Your task to perform on an android device: turn on location history Image 0: 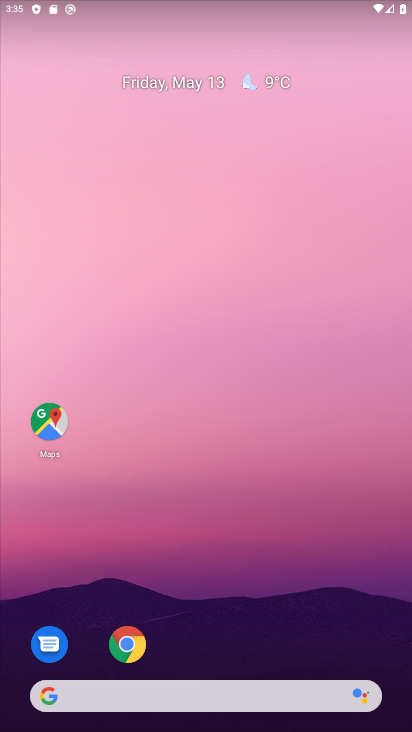
Step 0: drag from (267, 588) to (277, 133)
Your task to perform on an android device: turn on location history Image 1: 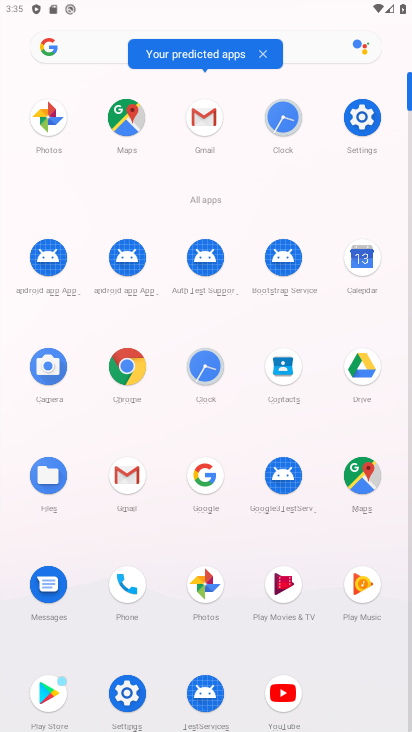
Step 1: click (363, 113)
Your task to perform on an android device: turn on location history Image 2: 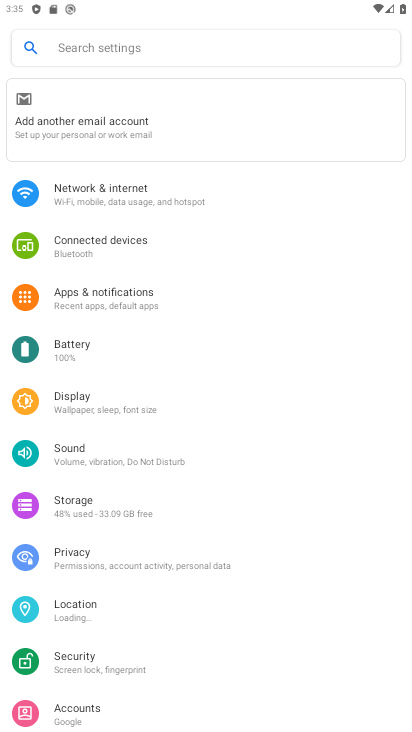
Step 2: click (105, 603)
Your task to perform on an android device: turn on location history Image 3: 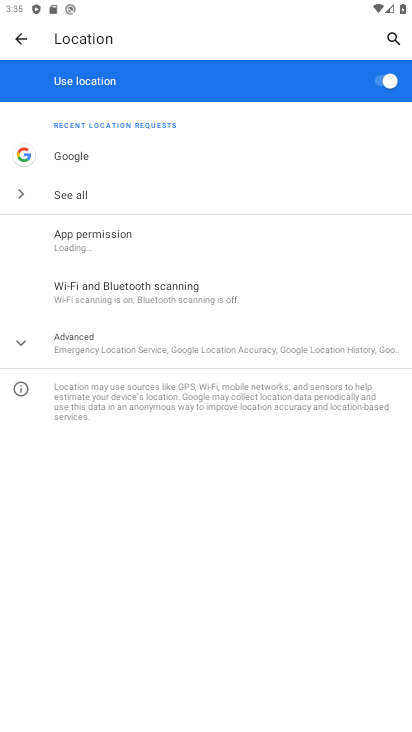
Step 3: click (14, 342)
Your task to perform on an android device: turn on location history Image 4: 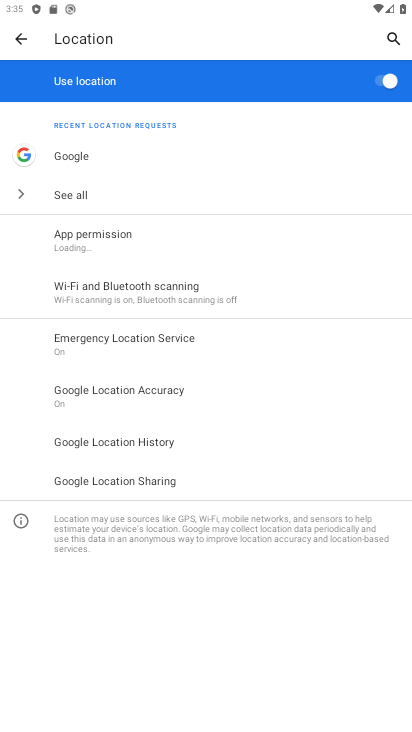
Step 4: click (167, 440)
Your task to perform on an android device: turn on location history Image 5: 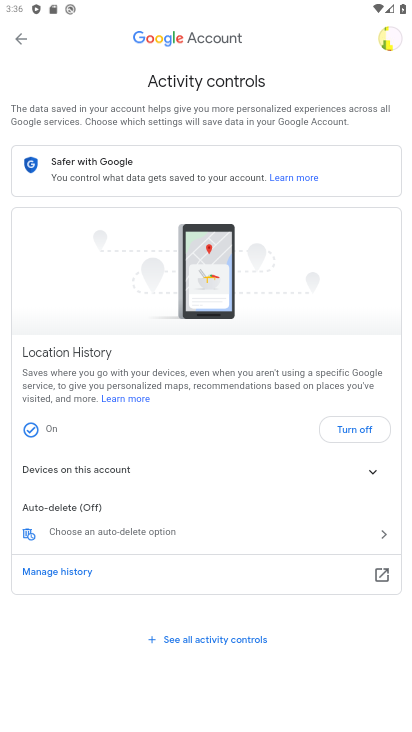
Step 5: task complete